Your task to perform on an android device: choose inbox layout in the gmail app Image 0: 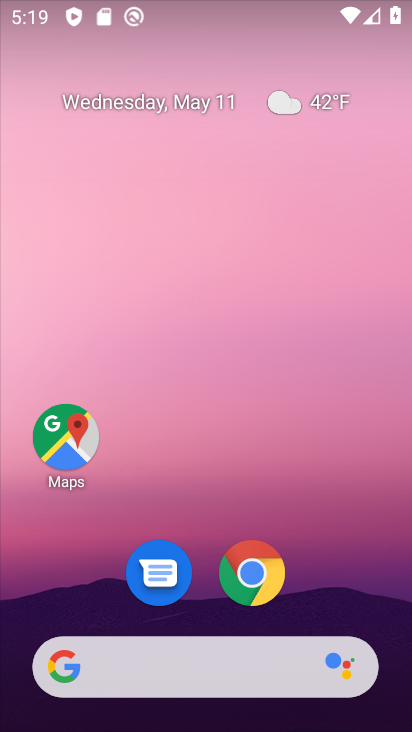
Step 0: drag from (314, 584) to (281, 136)
Your task to perform on an android device: choose inbox layout in the gmail app Image 1: 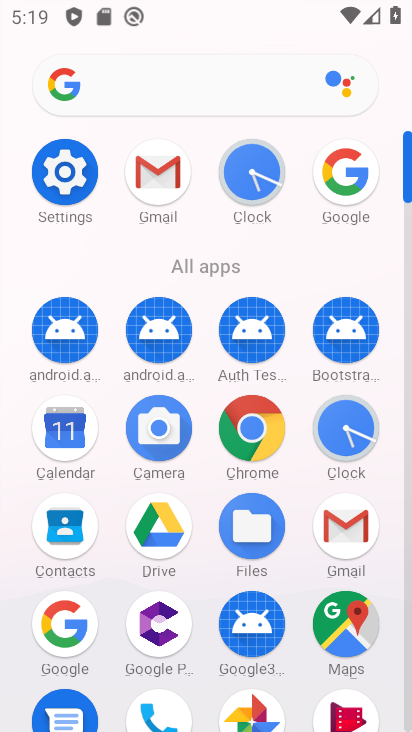
Step 1: click (358, 520)
Your task to perform on an android device: choose inbox layout in the gmail app Image 2: 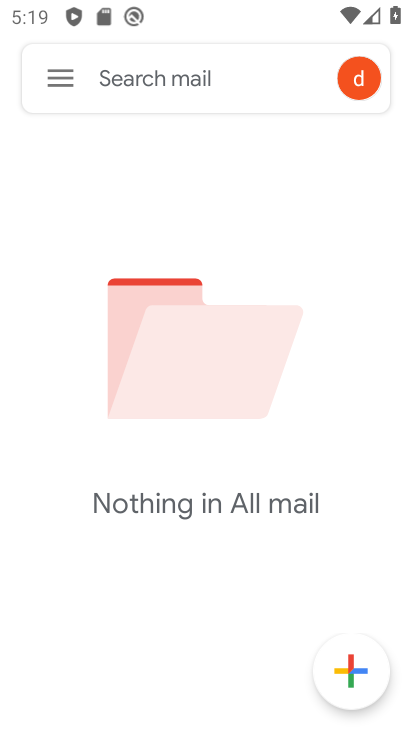
Step 2: click (59, 74)
Your task to perform on an android device: choose inbox layout in the gmail app Image 3: 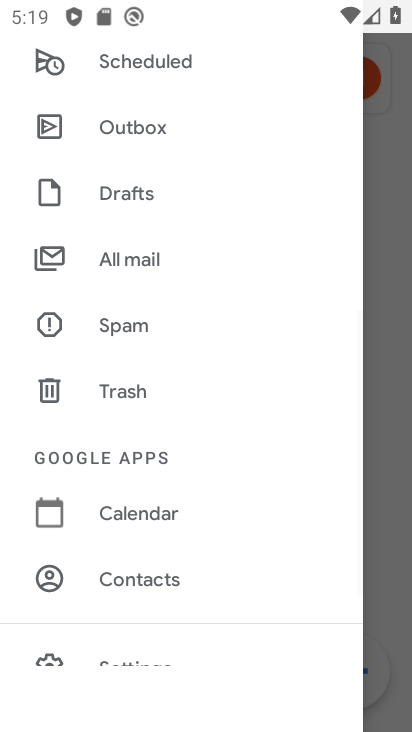
Step 3: drag from (169, 548) to (185, 280)
Your task to perform on an android device: choose inbox layout in the gmail app Image 4: 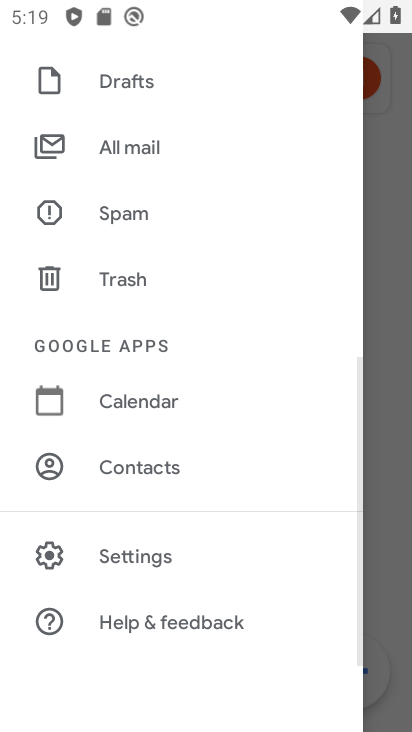
Step 4: click (162, 562)
Your task to perform on an android device: choose inbox layout in the gmail app Image 5: 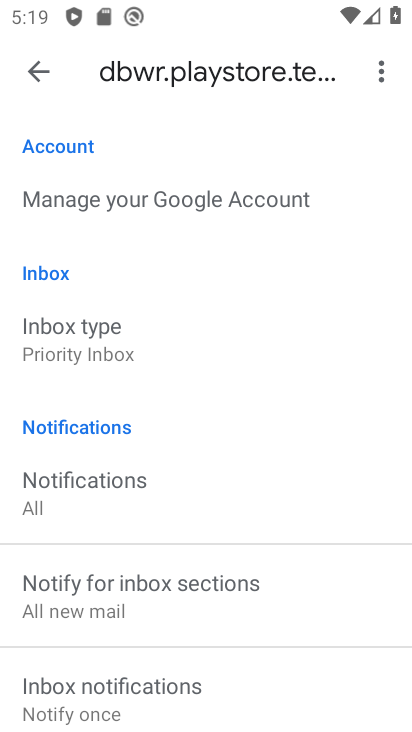
Step 5: click (91, 342)
Your task to perform on an android device: choose inbox layout in the gmail app Image 6: 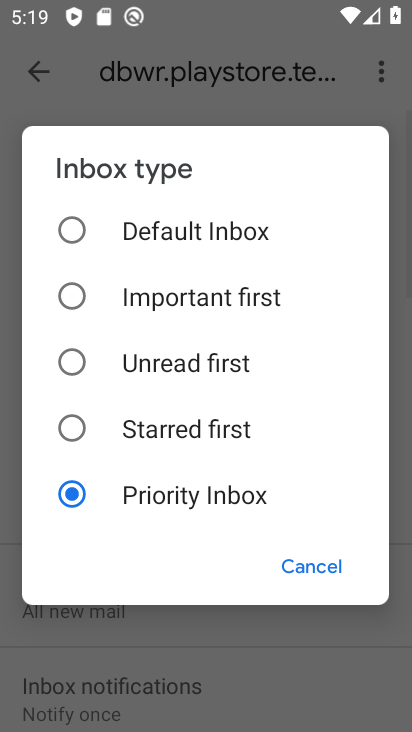
Step 6: click (80, 238)
Your task to perform on an android device: choose inbox layout in the gmail app Image 7: 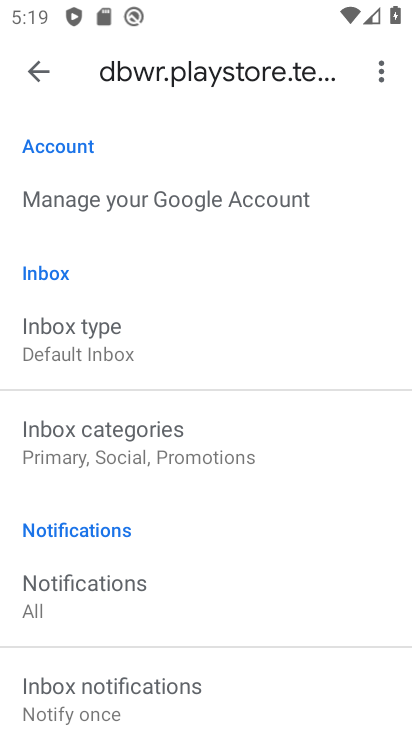
Step 7: task complete